Your task to perform on an android device: Open Android settings Image 0: 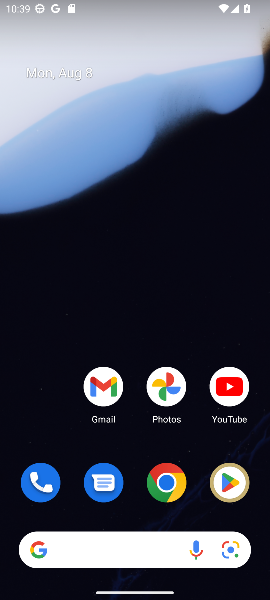
Step 0: drag from (130, 445) to (176, 2)
Your task to perform on an android device: Open Android settings Image 1: 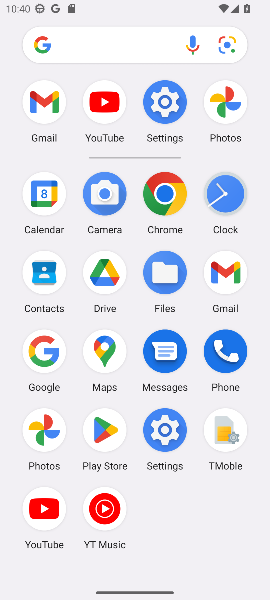
Step 1: click (165, 416)
Your task to perform on an android device: Open Android settings Image 2: 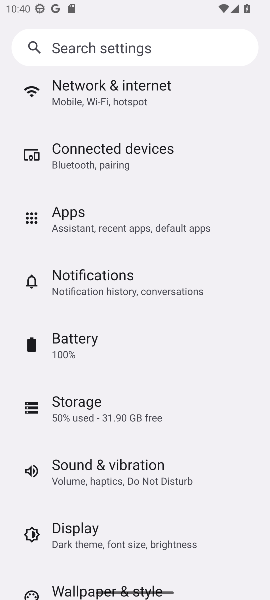
Step 2: drag from (124, 525) to (101, 58)
Your task to perform on an android device: Open Android settings Image 3: 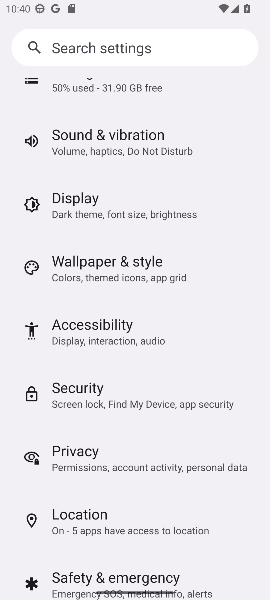
Step 3: drag from (115, 425) to (115, 104)
Your task to perform on an android device: Open Android settings Image 4: 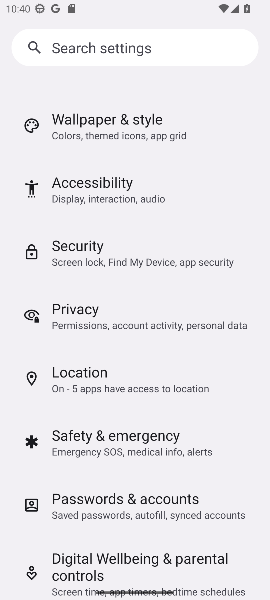
Step 4: drag from (133, 497) to (115, 284)
Your task to perform on an android device: Open Android settings Image 5: 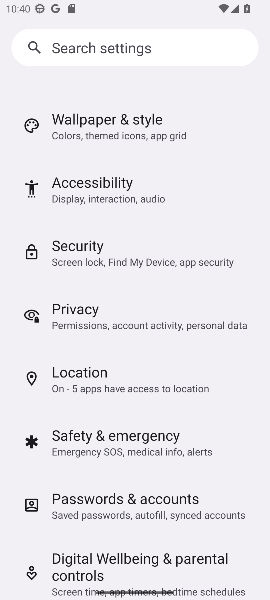
Step 5: drag from (115, 515) to (115, 294)
Your task to perform on an android device: Open Android settings Image 6: 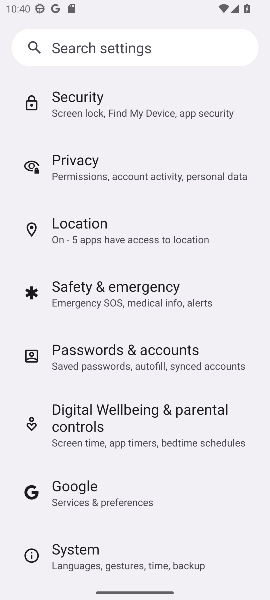
Step 6: click (79, 569)
Your task to perform on an android device: Open Android settings Image 7: 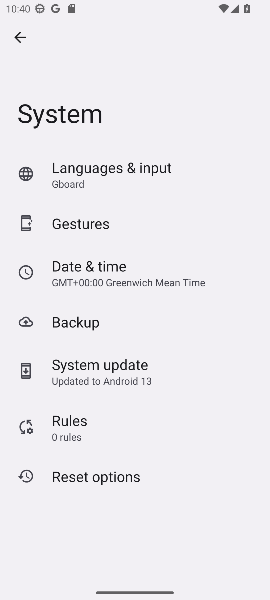
Step 7: task complete